Your task to perform on an android device: toggle sleep mode Image 0: 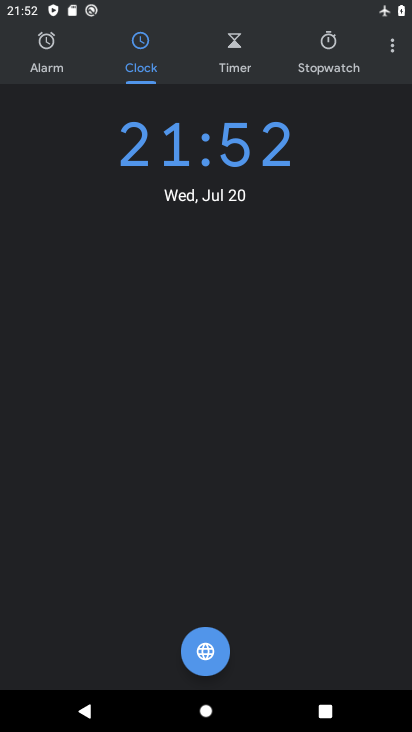
Step 0: press home button
Your task to perform on an android device: toggle sleep mode Image 1: 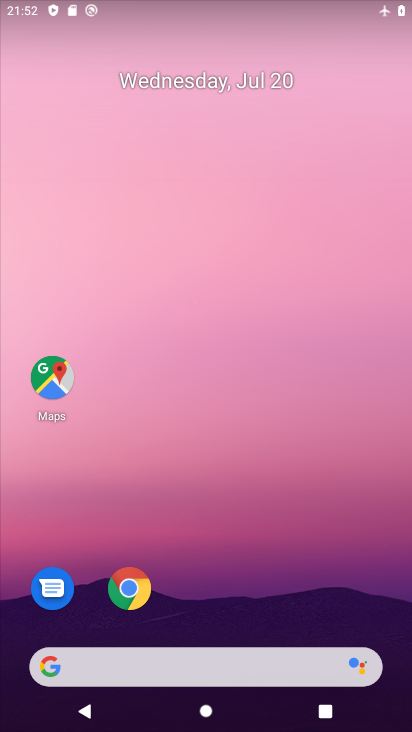
Step 1: drag from (377, 629) to (326, 124)
Your task to perform on an android device: toggle sleep mode Image 2: 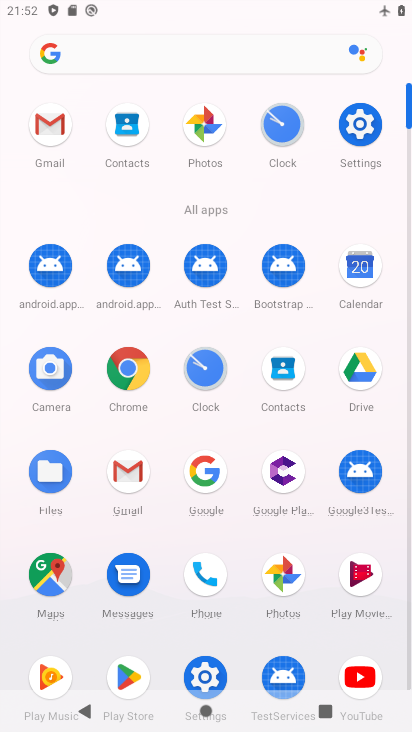
Step 2: click (201, 678)
Your task to perform on an android device: toggle sleep mode Image 3: 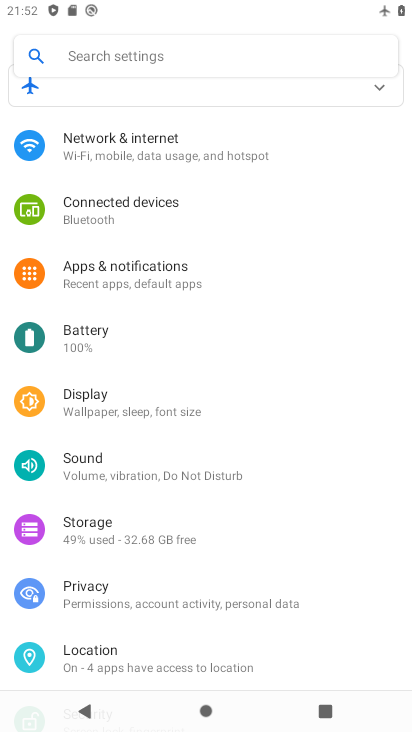
Step 3: click (95, 398)
Your task to perform on an android device: toggle sleep mode Image 4: 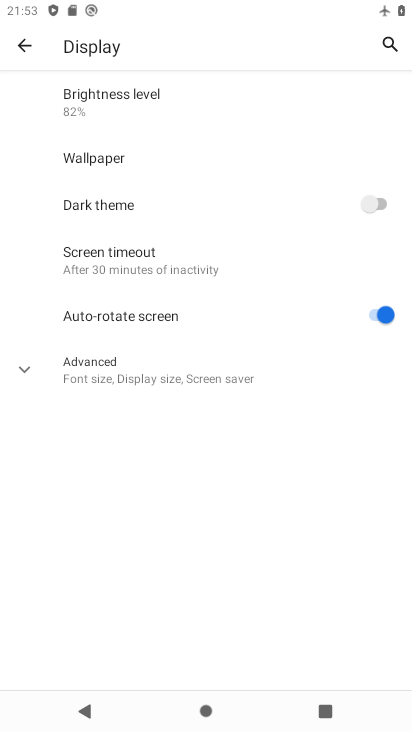
Step 4: click (24, 363)
Your task to perform on an android device: toggle sleep mode Image 5: 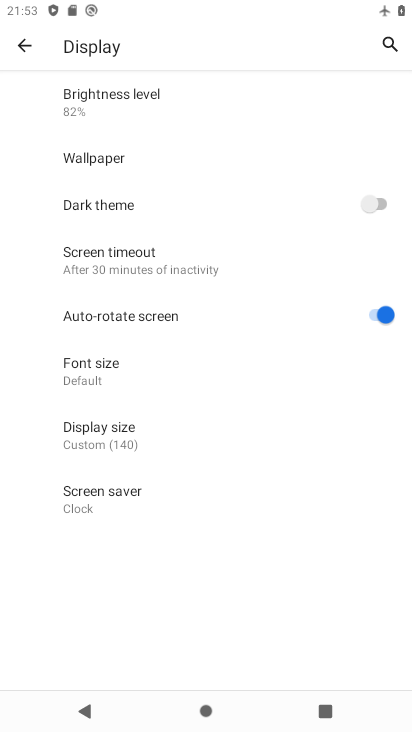
Step 5: task complete